Your task to perform on an android device: Open Maps and search for coffee Image 0: 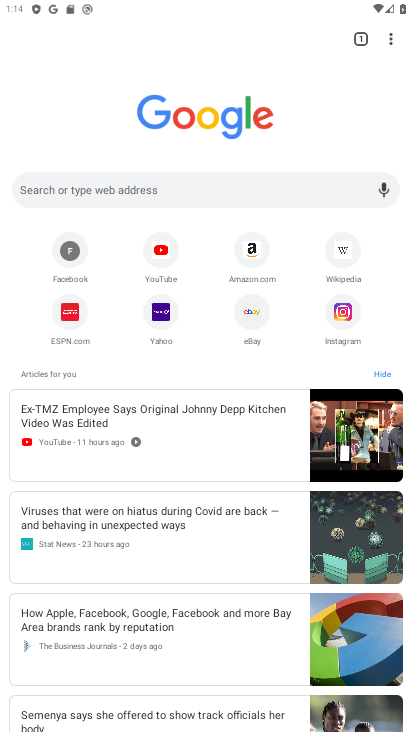
Step 0: press home button
Your task to perform on an android device: Open Maps and search for coffee Image 1: 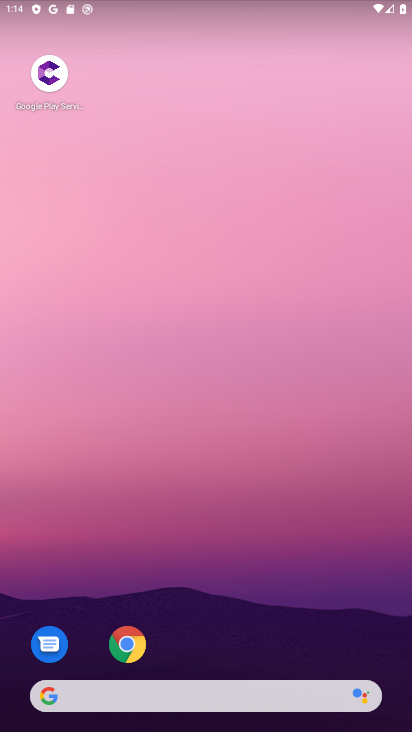
Step 1: drag from (237, 557) to (250, 285)
Your task to perform on an android device: Open Maps and search for coffee Image 2: 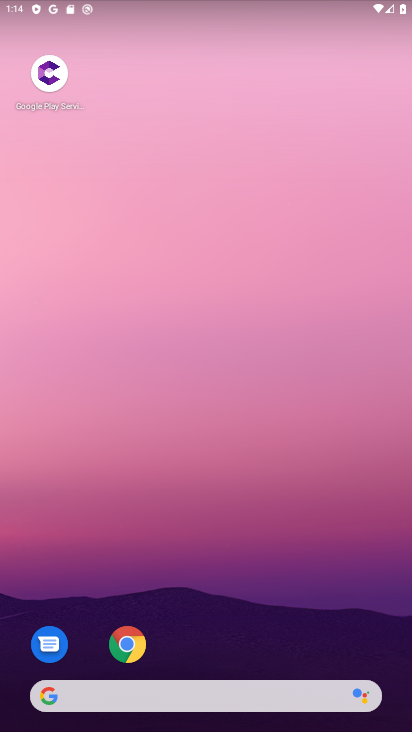
Step 2: drag from (174, 491) to (212, 342)
Your task to perform on an android device: Open Maps and search for coffee Image 3: 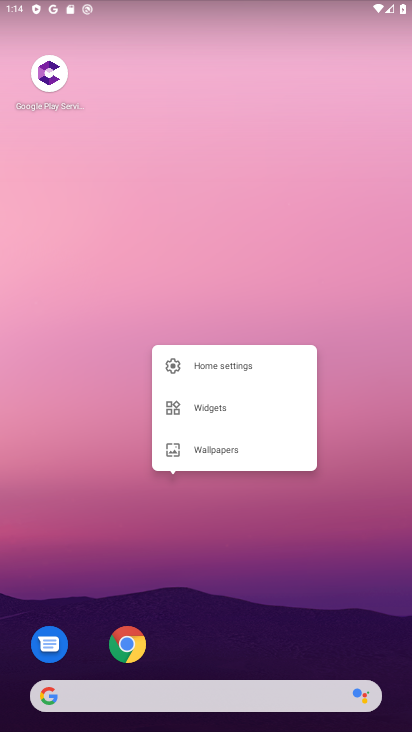
Step 3: drag from (183, 646) to (239, 247)
Your task to perform on an android device: Open Maps and search for coffee Image 4: 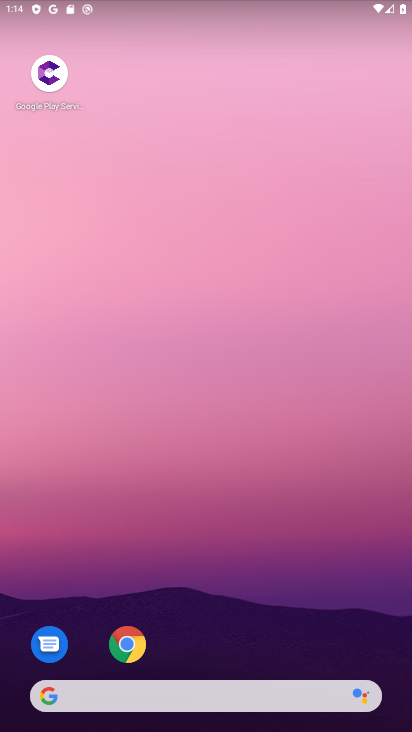
Step 4: drag from (219, 582) to (275, 240)
Your task to perform on an android device: Open Maps and search for coffee Image 5: 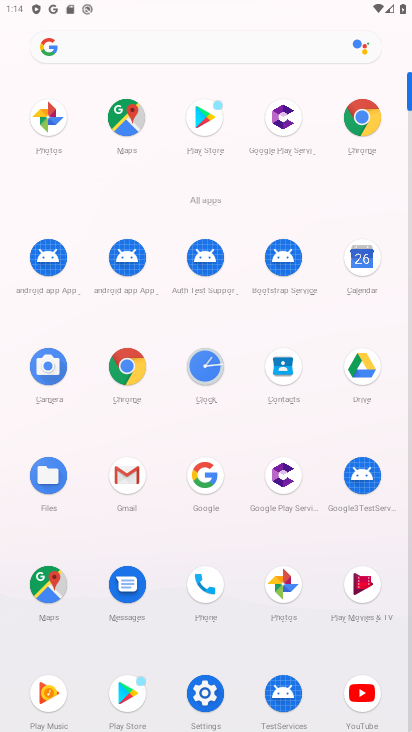
Step 5: click (110, 112)
Your task to perform on an android device: Open Maps and search for coffee Image 6: 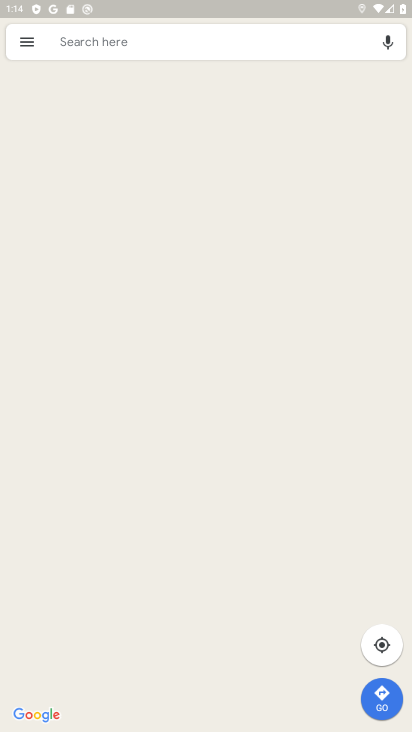
Step 6: click (185, 40)
Your task to perform on an android device: Open Maps and search for coffee Image 7: 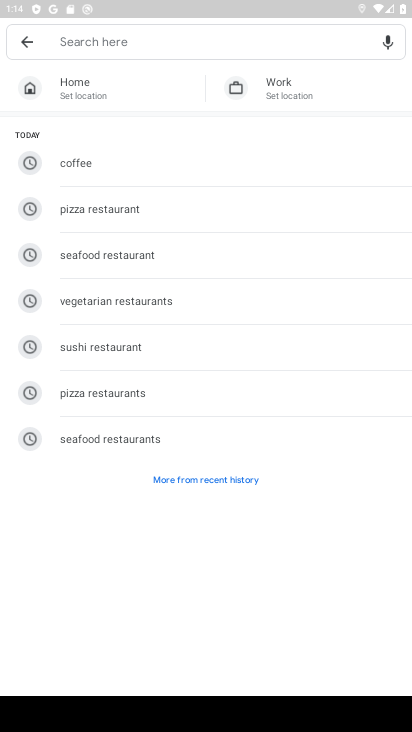
Step 7: click (85, 153)
Your task to perform on an android device: Open Maps and search for coffee Image 8: 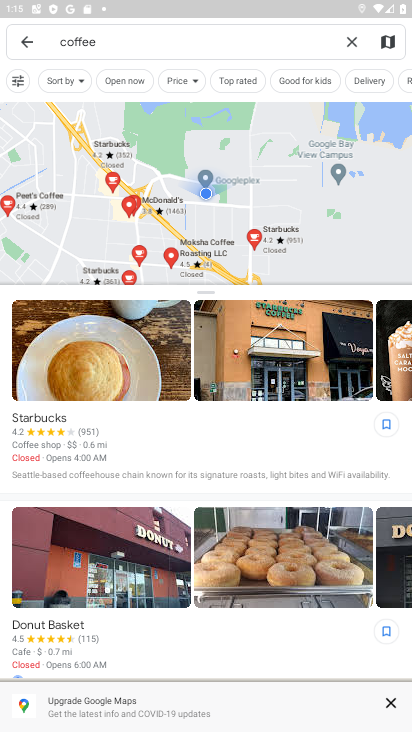
Step 8: task complete